Your task to perform on an android device: find snoozed emails in the gmail app Image 0: 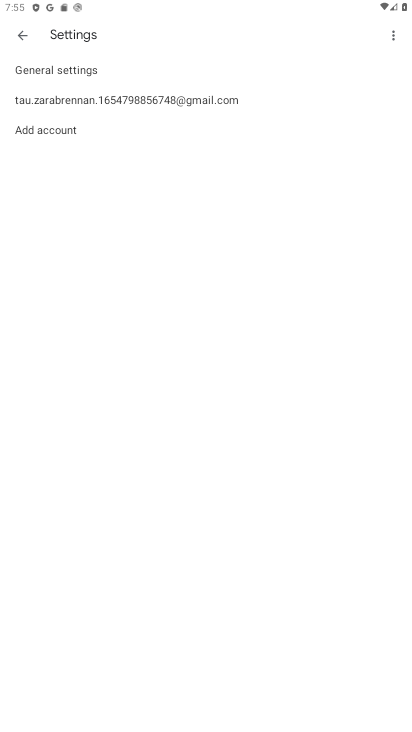
Step 0: press back button
Your task to perform on an android device: find snoozed emails in the gmail app Image 1: 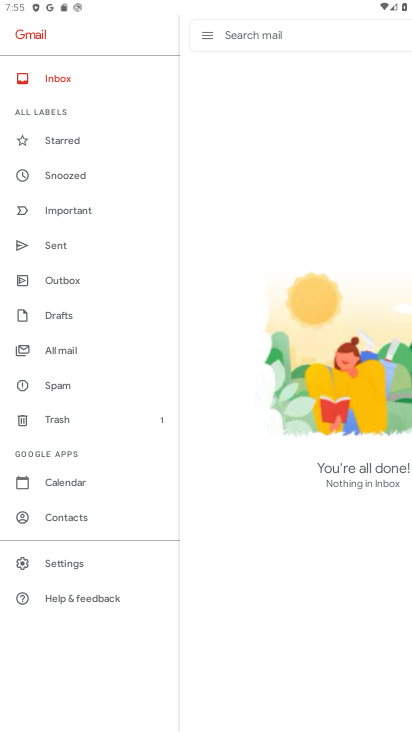
Step 1: press back button
Your task to perform on an android device: find snoozed emails in the gmail app Image 2: 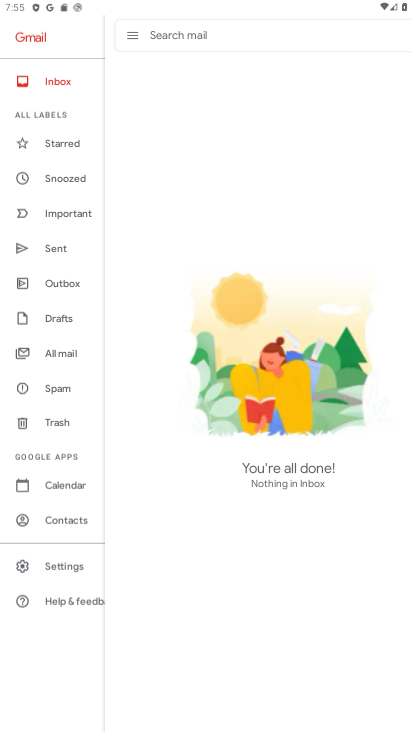
Step 2: press back button
Your task to perform on an android device: find snoozed emails in the gmail app Image 3: 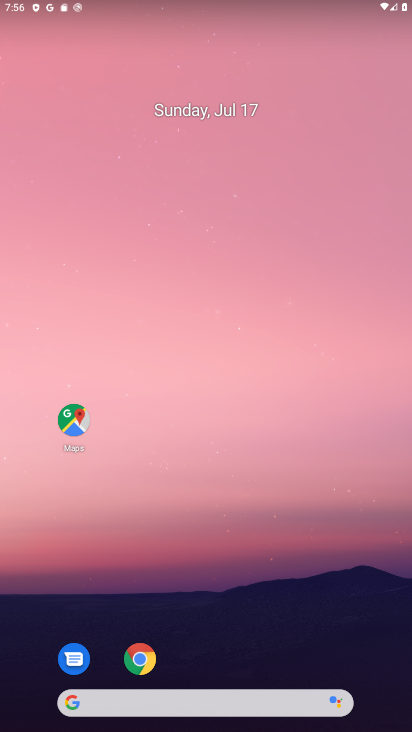
Step 3: drag from (209, 668) to (142, 50)
Your task to perform on an android device: find snoozed emails in the gmail app Image 4: 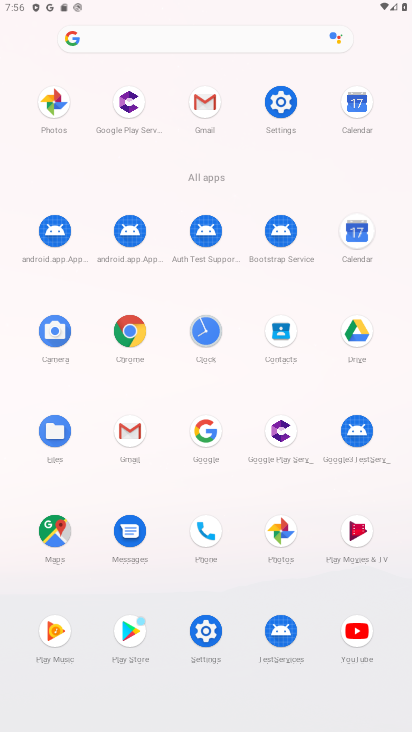
Step 4: click (126, 430)
Your task to perform on an android device: find snoozed emails in the gmail app Image 5: 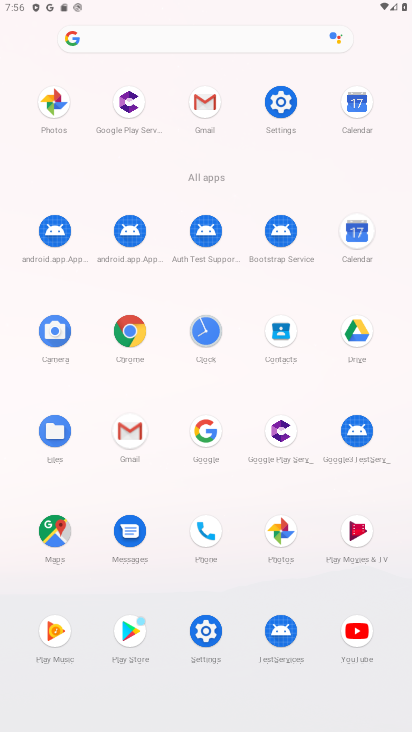
Step 5: click (130, 429)
Your task to perform on an android device: find snoozed emails in the gmail app Image 6: 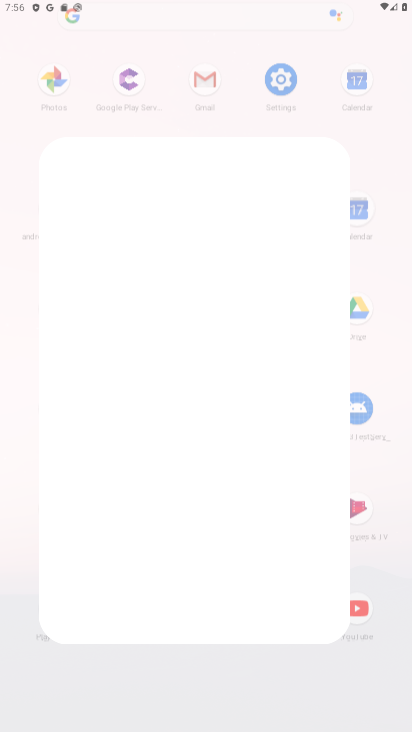
Step 6: click (130, 429)
Your task to perform on an android device: find snoozed emails in the gmail app Image 7: 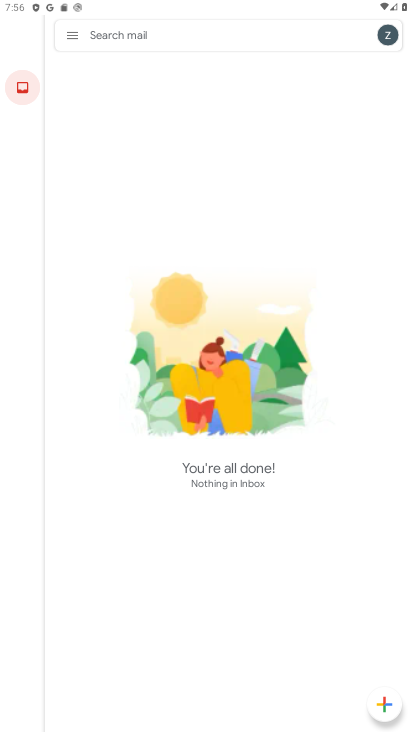
Step 7: click (76, 33)
Your task to perform on an android device: find snoozed emails in the gmail app Image 8: 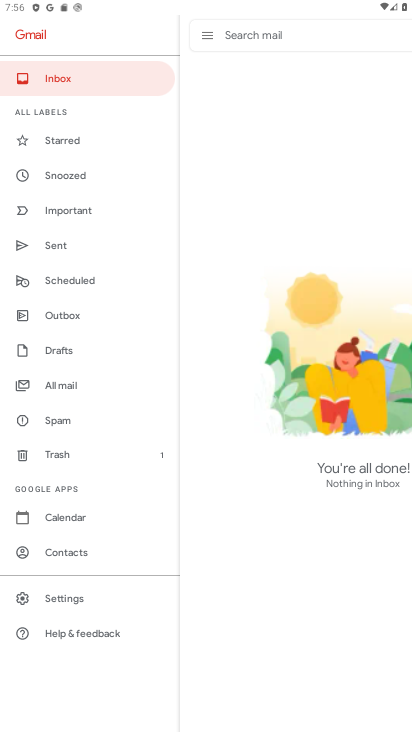
Step 8: click (60, 171)
Your task to perform on an android device: find snoozed emails in the gmail app Image 9: 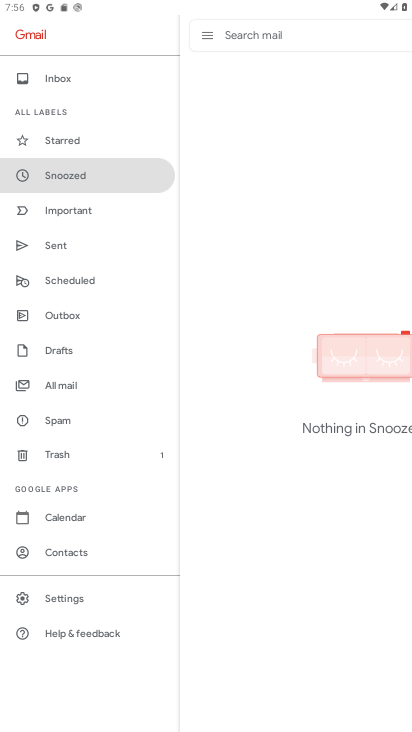
Step 9: task complete